Your task to perform on an android device: Go to accessibility settings Image 0: 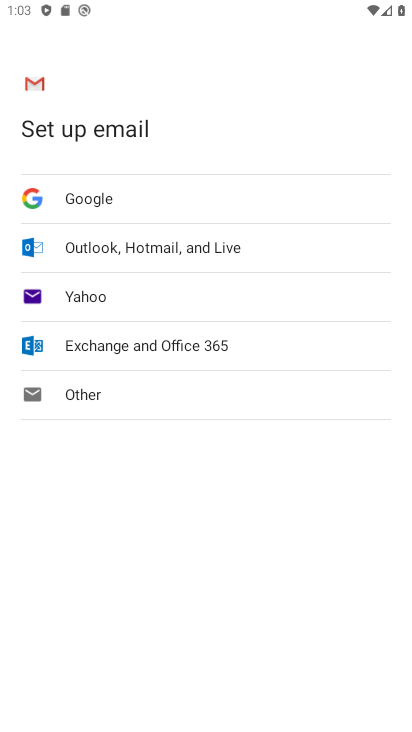
Step 0: press home button
Your task to perform on an android device: Go to accessibility settings Image 1: 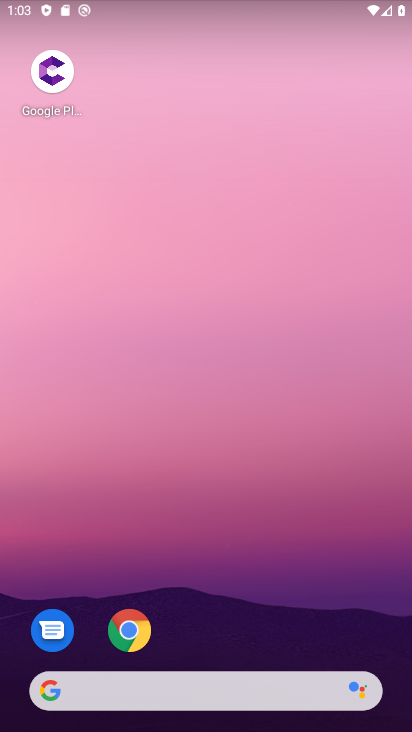
Step 1: drag from (253, 688) to (210, 197)
Your task to perform on an android device: Go to accessibility settings Image 2: 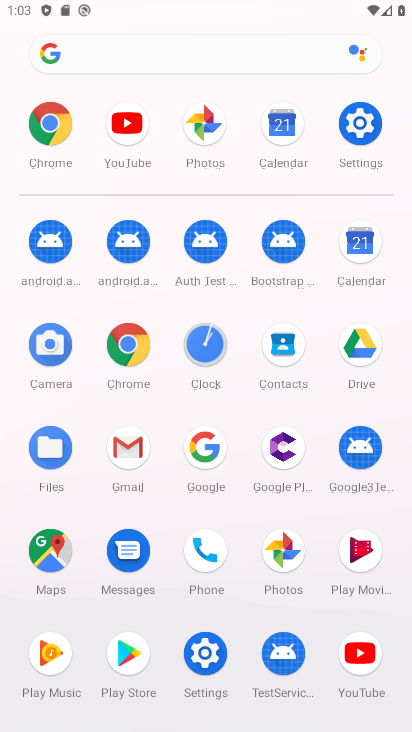
Step 2: click (205, 652)
Your task to perform on an android device: Go to accessibility settings Image 3: 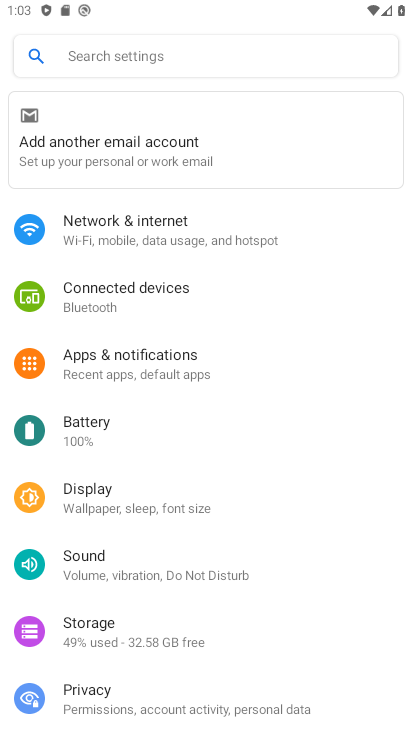
Step 3: drag from (185, 582) to (213, 145)
Your task to perform on an android device: Go to accessibility settings Image 4: 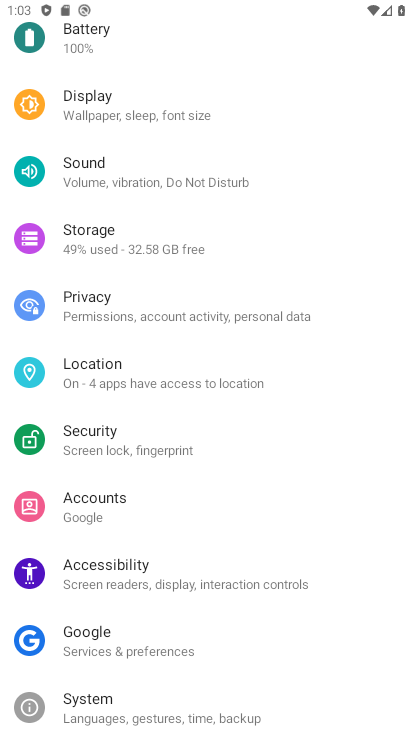
Step 4: click (178, 584)
Your task to perform on an android device: Go to accessibility settings Image 5: 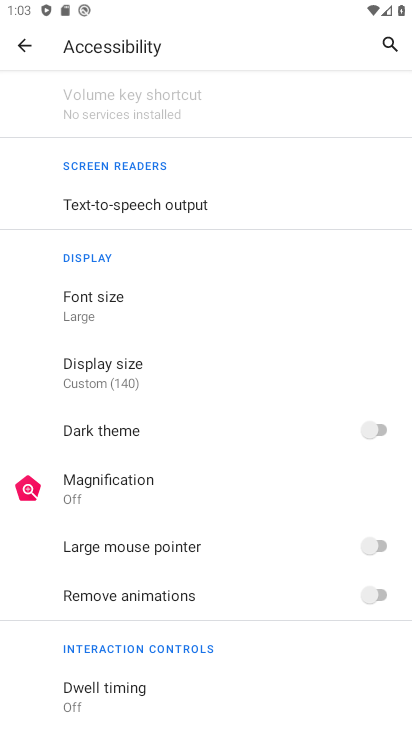
Step 5: task complete